Your task to perform on an android device: add a contact Image 0: 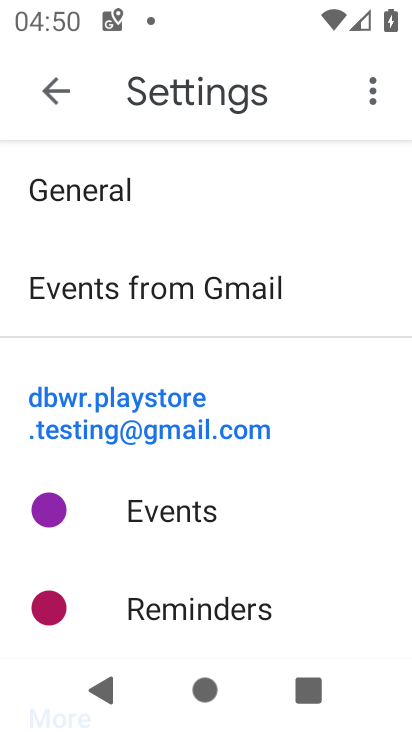
Step 0: press home button
Your task to perform on an android device: add a contact Image 1: 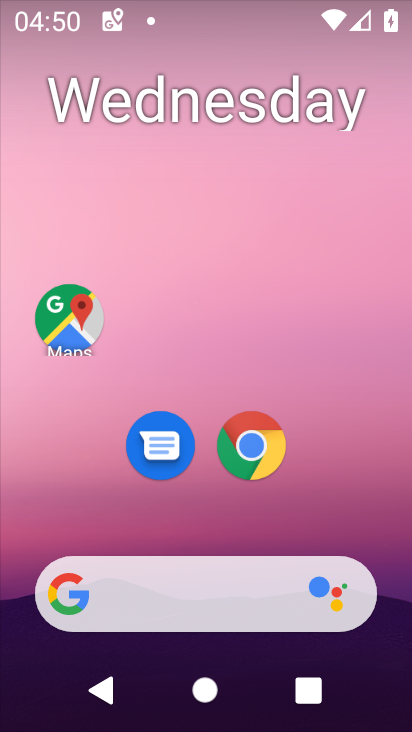
Step 1: drag from (194, 527) to (281, 0)
Your task to perform on an android device: add a contact Image 2: 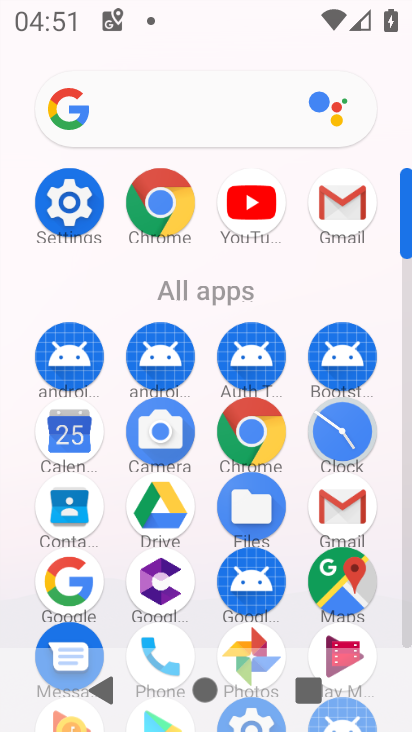
Step 2: click (60, 519)
Your task to perform on an android device: add a contact Image 3: 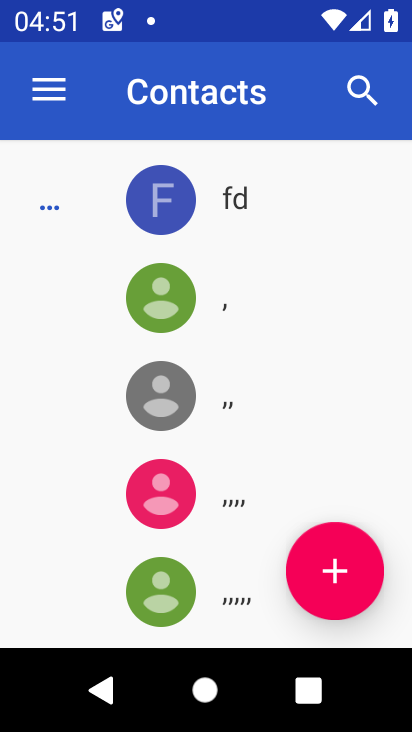
Step 3: click (358, 548)
Your task to perform on an android device: add a contact Image 4: 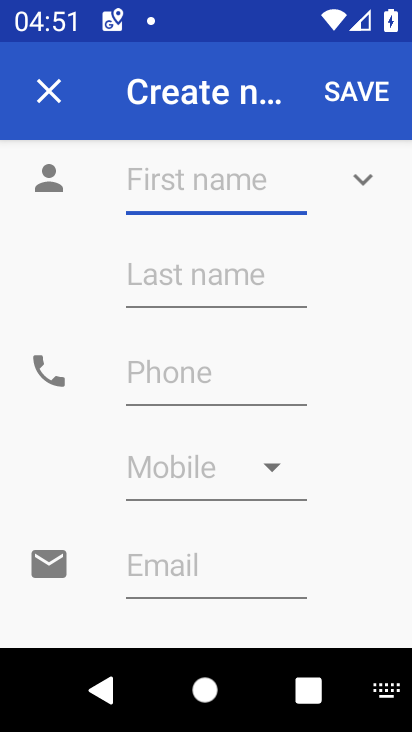
Step 4: type "jytrdf"
Your task to perform on an android device: add a contact Image 5: 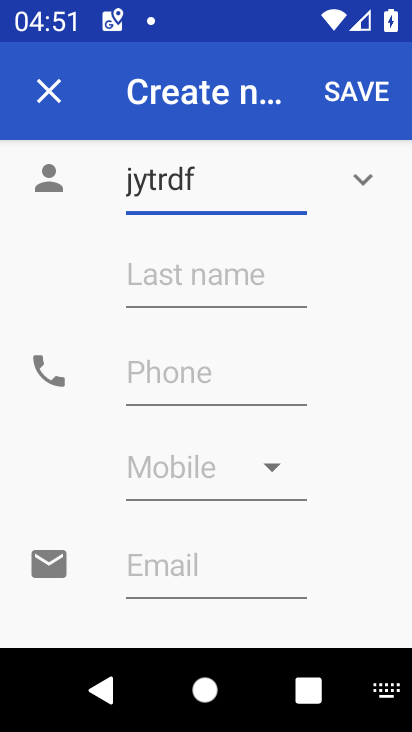
Step 5: click (178, 400)
Your task to perform on an android device: add a contact Image 6: 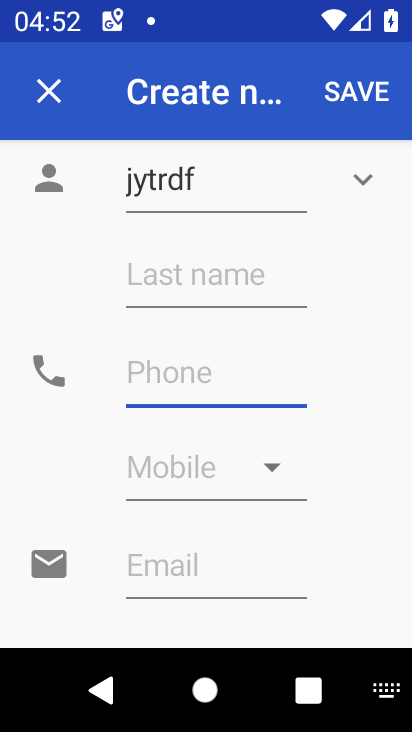
Step 6: type "12345678987"
Your task to perform on an android device: add a contact Image 7: 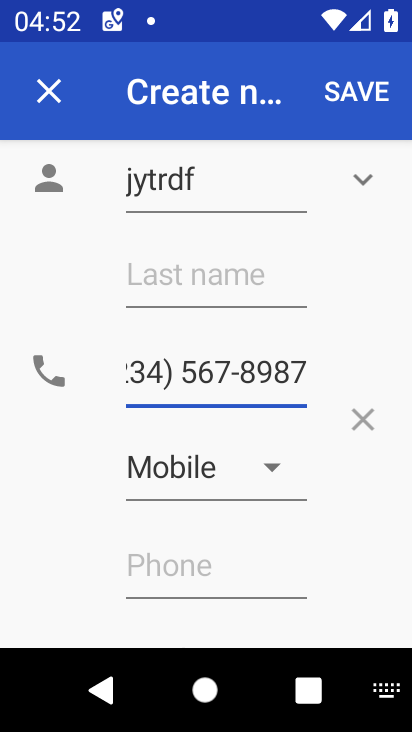
Step 7: click (372, 92)
Your task to perform on an android device: add a contact Image 8: 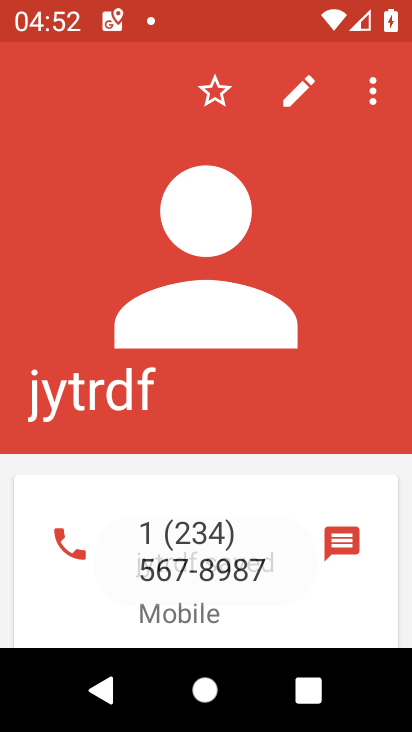
Step 8: task complete